Your task to perform on an android device: Go to location settings Image 0: 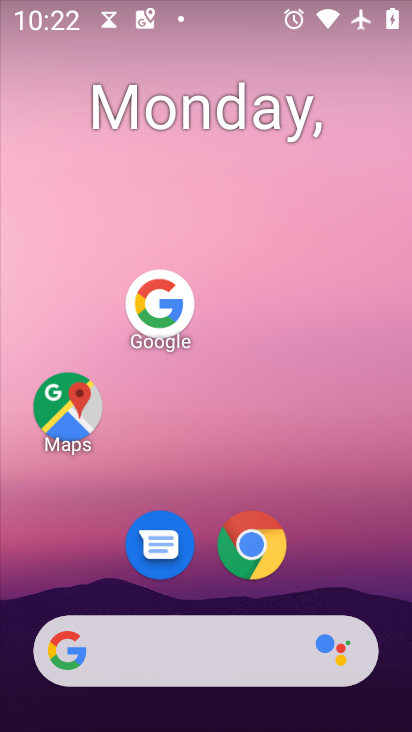
Step 0: press home button
Your task to perform on an android device: Go to location settings Image 1: 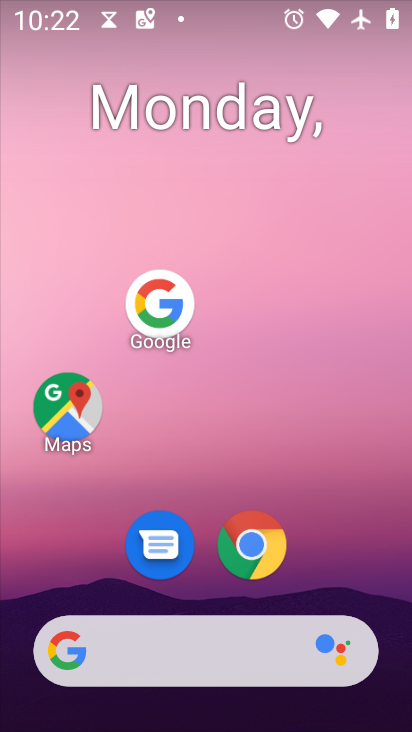
Step 1: drag from (193, 604) to (349, 124)
Your task to perform on an android device: Go to location settings Image 2: 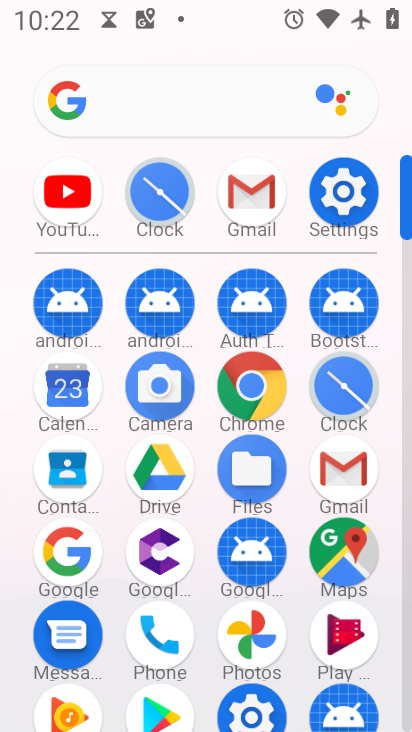
Step 2: click (360, 197)
Your task to perform on an android device: Go to location settings Image 3: 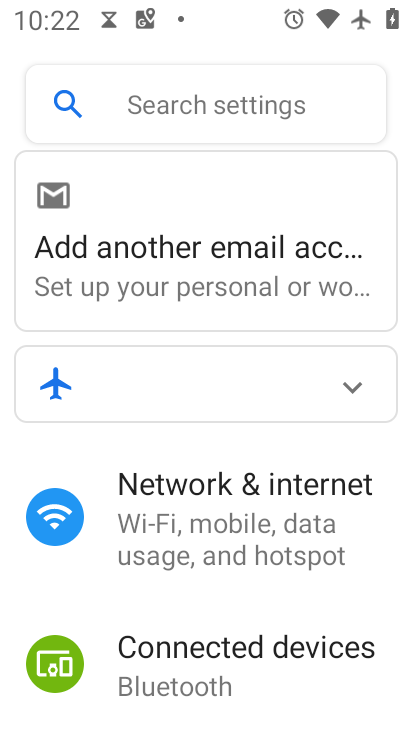
Step 3: drag from (196, 693) to (358, 86)
Your task to perform on an android device: Go to location settings Image 4: 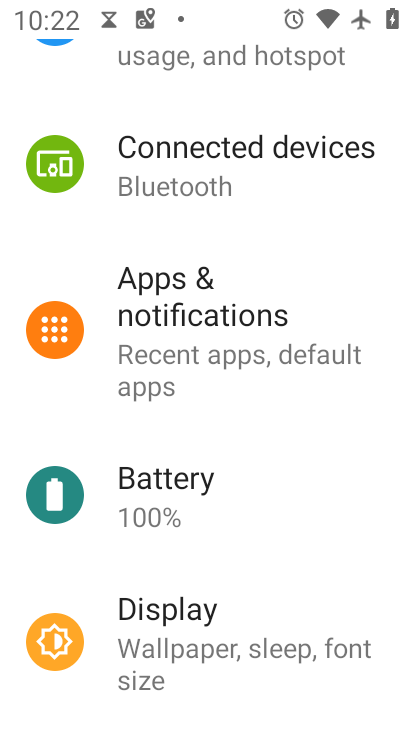
Step 4: drag from (230, 610) to (321, 61)
Your task to perform on an android device: Go to location settings Image 5: 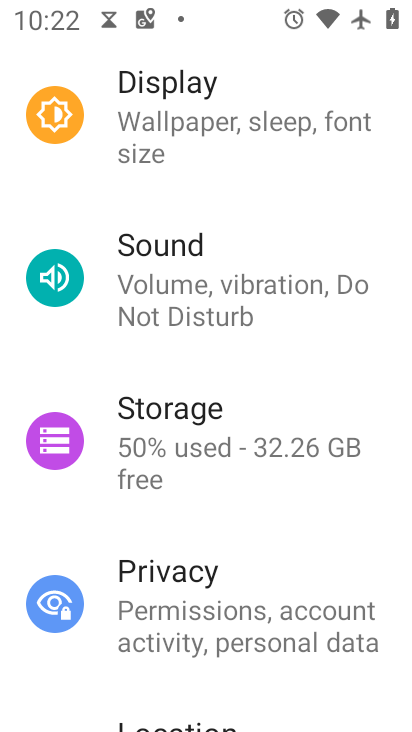
Step 5: drag from (233, 582) to (315, 95)
Your task to perform on an android device: Go to location settings Image 6: 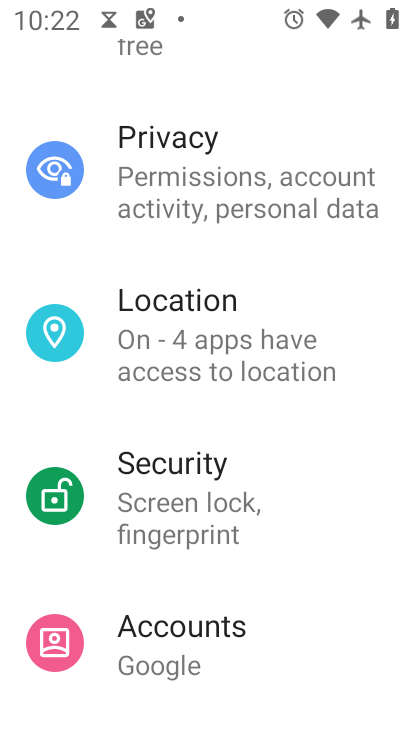
Step 6: click (187, 333)
Your task to perform on an android device: Go to location settings Image 7: 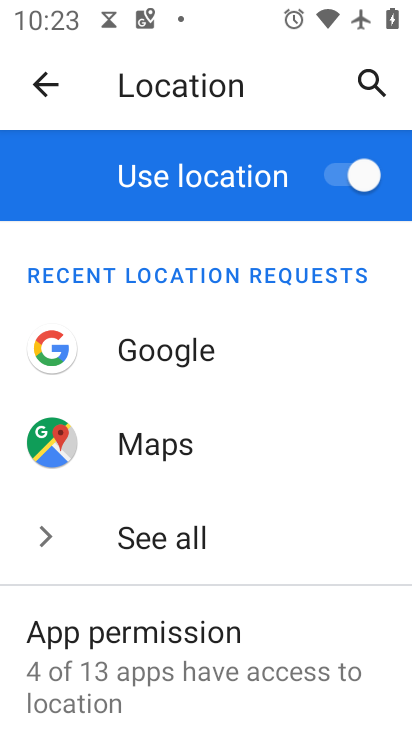
Step 7: task complete